Your task to perform on an android device: open a new tab in the chrome app Image 0: 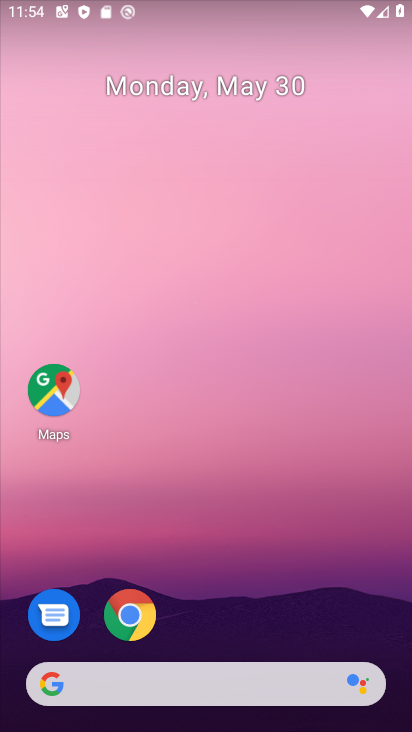
Step 0: click (124, 612)
Your task to perform on an android device: open a new tab in the chrome app Image 1: 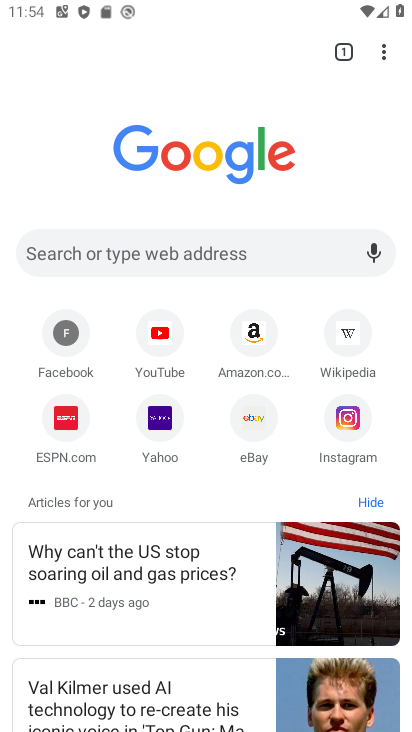
Step 1: click (386, 52)
Your task to perform on an android device: open a new tab in the chrome app Image 2: 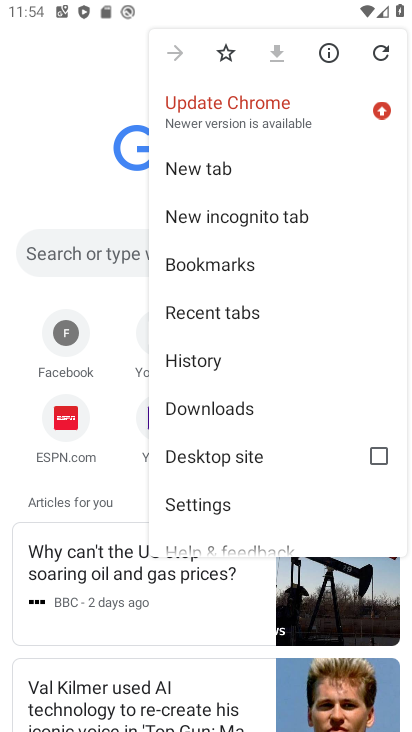
Step 2: click (179, 167)
Your task to perform on an android device: open a new tab in the chrome app Image 3: 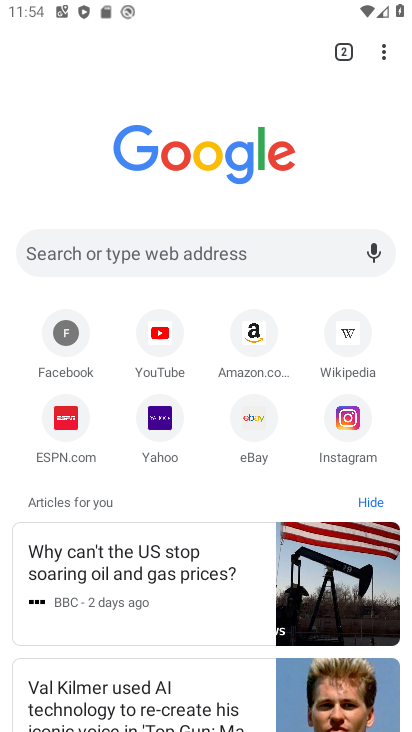
Step 3: task complete